Your task to perform on an android device: turn on improve location accuracy Image 0: 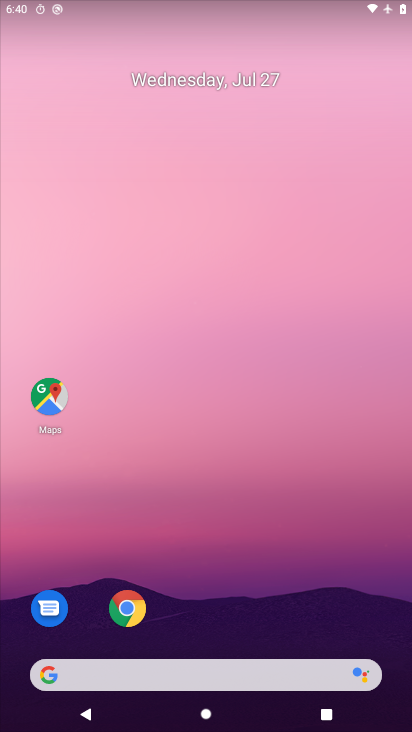
Step 0: press home button
Your task to perform on an android device: turn on improve location accuracy Image 1: 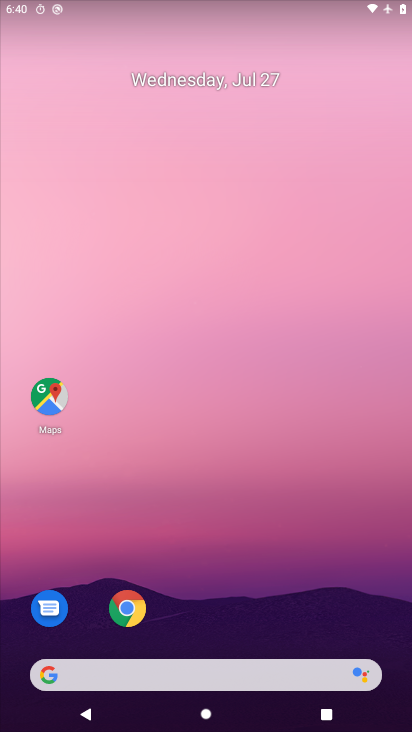
Step 1: drag from (344, 592) to (339, 289)
Your task to perform on an android device: turn on improve location accuracy Image 2: 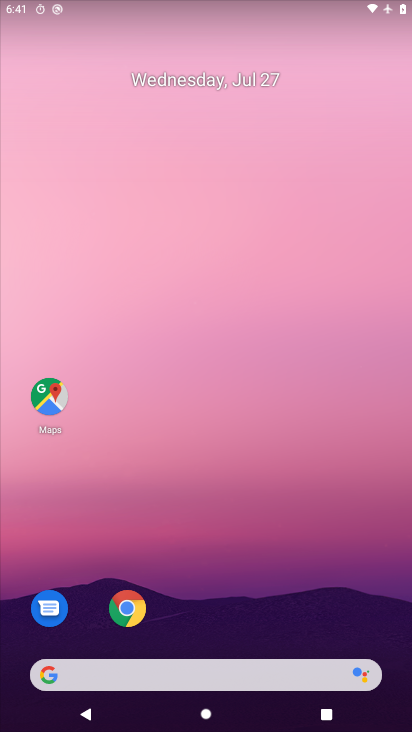
Step 2: click (209, 574)
Your task to perform on an android device: turn on improve location accuracy Image 3: 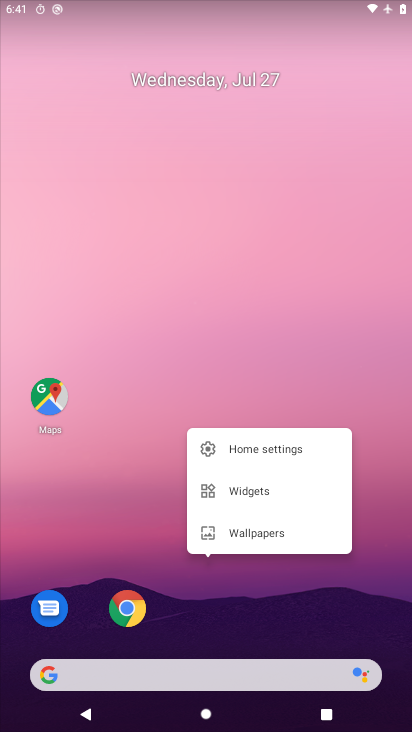
Step 3: click (215, 556)
Your task to perform on an android device: turn on improve location accuracy Image 4: 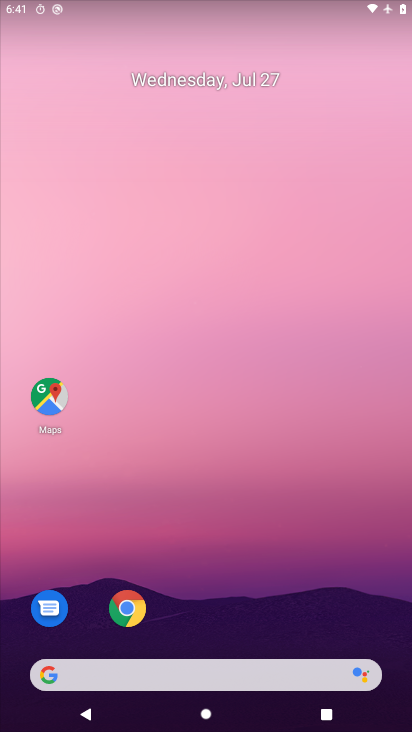
Step 4: drag from (228, 600) to (191, 4)
Your task to perform on an android device: turn on improve location accuracy Image 5: 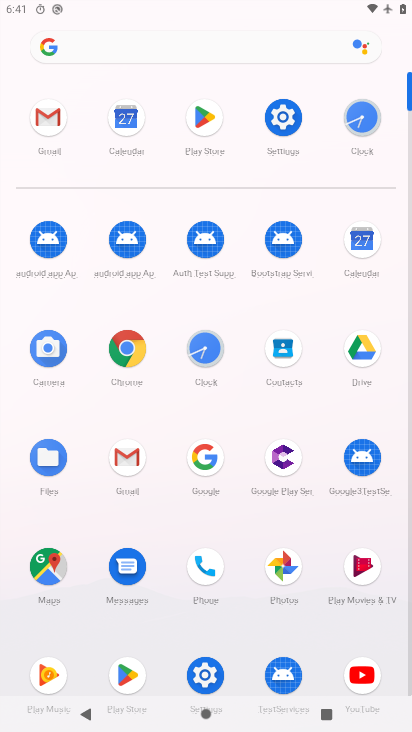
Step 5: click (278, 117)
Your task to perform on an android device: turn on improve location accuracy Image 6: 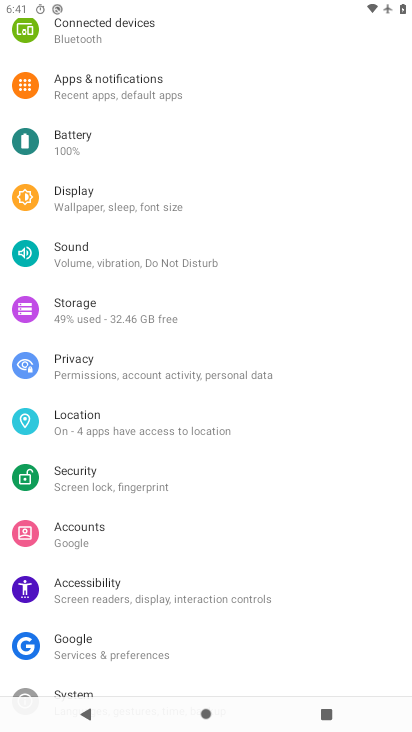
Step 6: click (81, 421)
Your task to perform on an android device: turn on improve location accuracy Image 7: 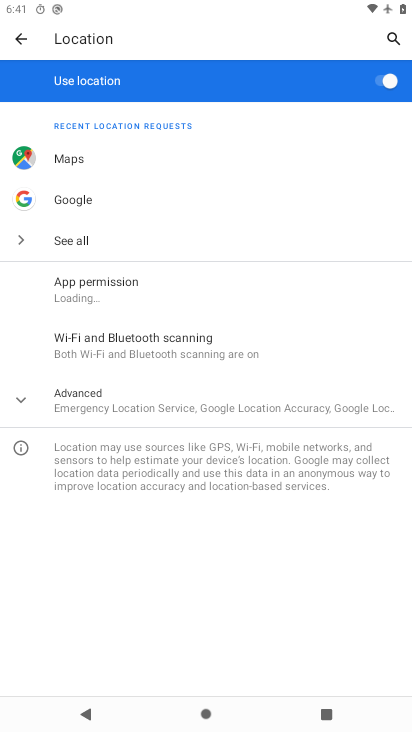
Step 7: click (81, 412)
Your task to perform on an android device: turn on improve location accuracy Image 8: 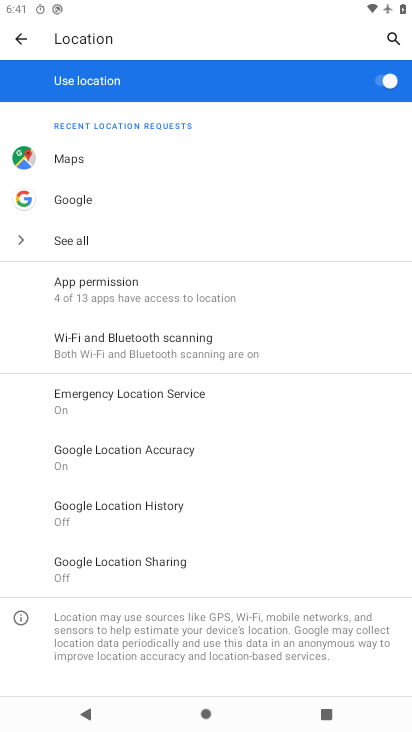
Step 8: click (79, 454)
Your task to perform on an android device: turn on improve location accuracy Image 9: 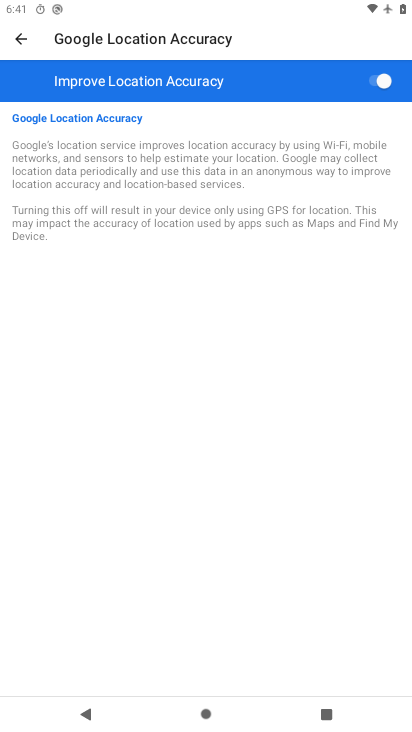
Step 9: click (79, 454)
Your task to perform on an android device: turn on improve location accuracy Image 10: 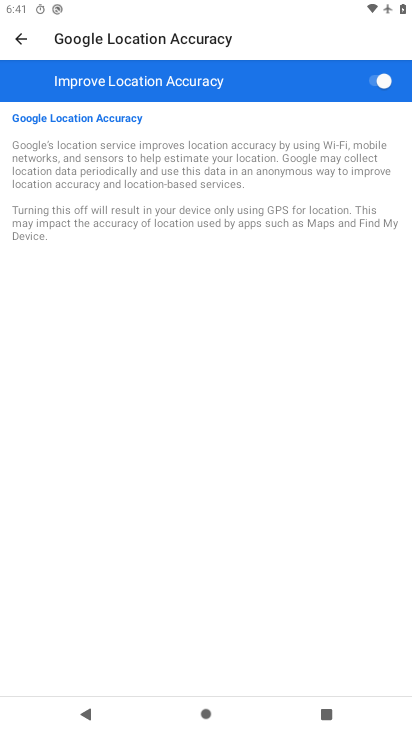
Step 10: task complete